Your task to perform on an android device: Go to eBay Image 0: 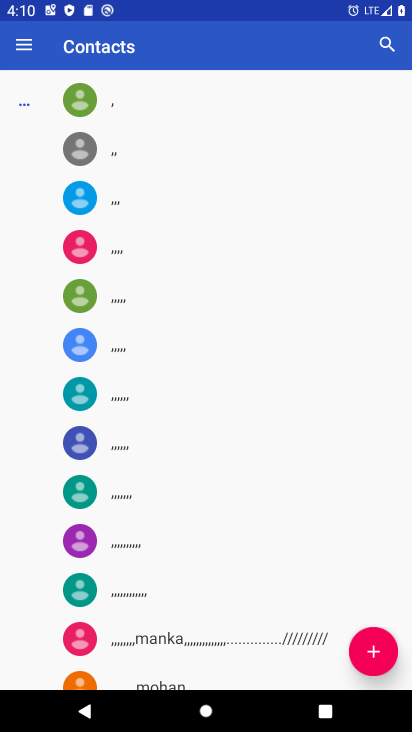
Step 0: press home button
Your task to perform on an android device: Go to eBay Image 1: 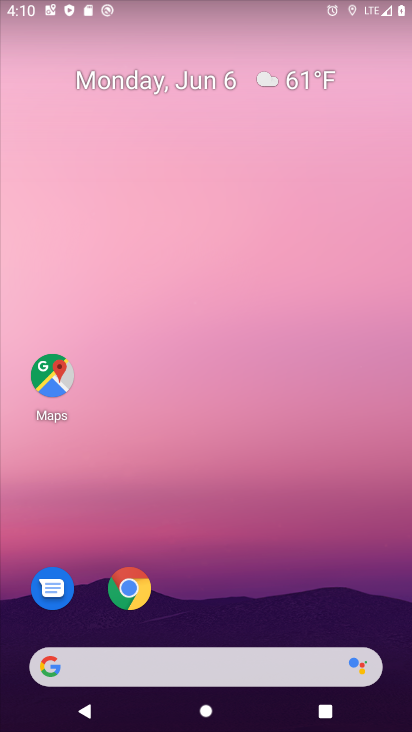
Step 1: click (118, 578)
Your task to perform on an android device: Go to eBay Image 2: 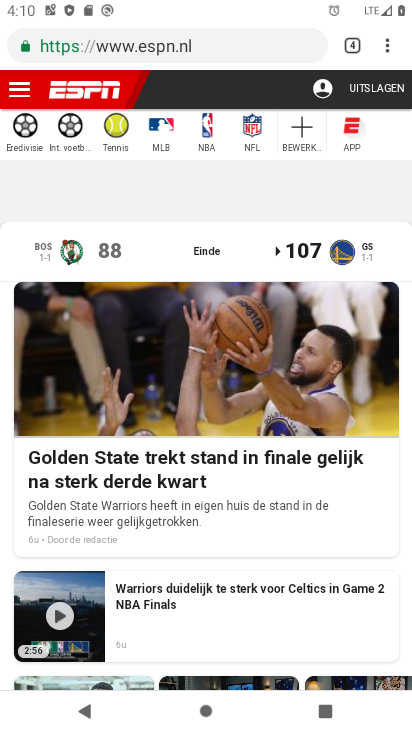
Step 2: click (292, 40)
Your task to perform on an android device: Go to eBay Image 3: 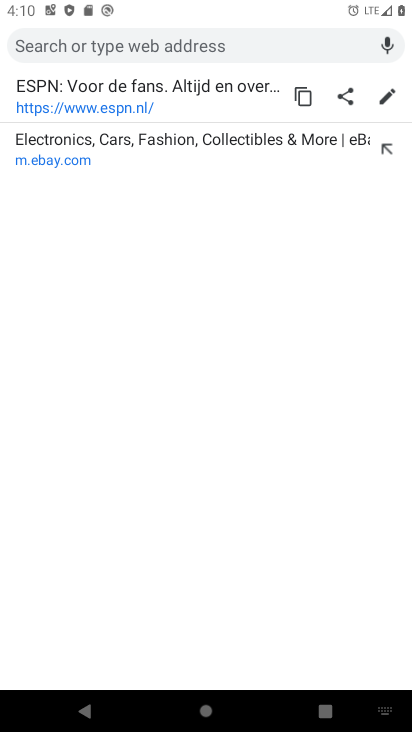
Step 3: click (201, 156)
Your task to perform on an android device: Go to eBay Image 4: 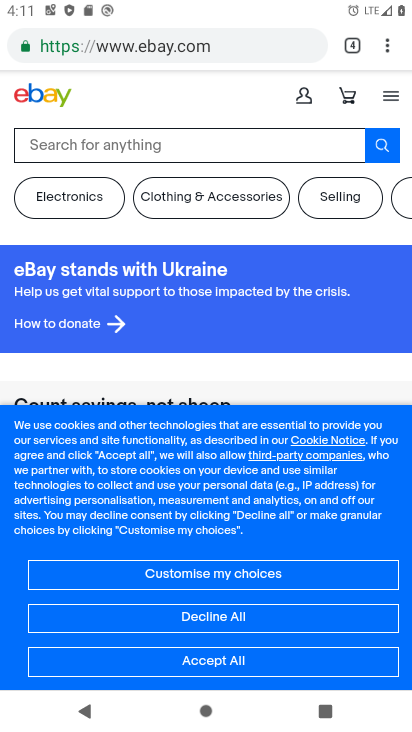
Step 4: task complete